Your task to perform on an android device: clear history in the chrome app Image 0: 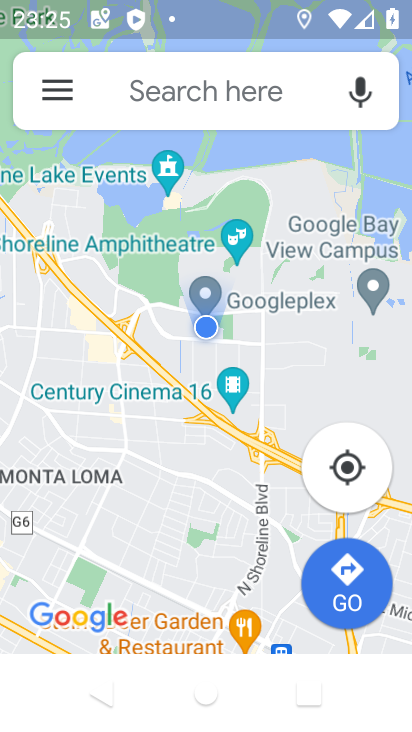
Step 0: press home button
Your task to perform on an android device: clear history in the chrome app Image 1: 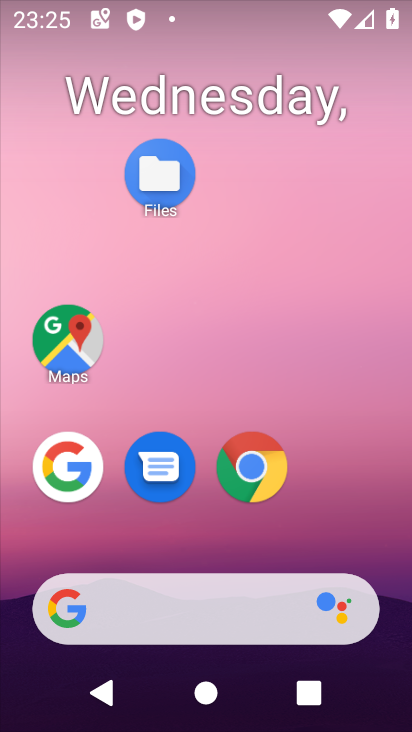
Step 1: drag from (200, 567) to (154, 27)
Your task to perform on an android device: clear history in the chrome app Image 2: 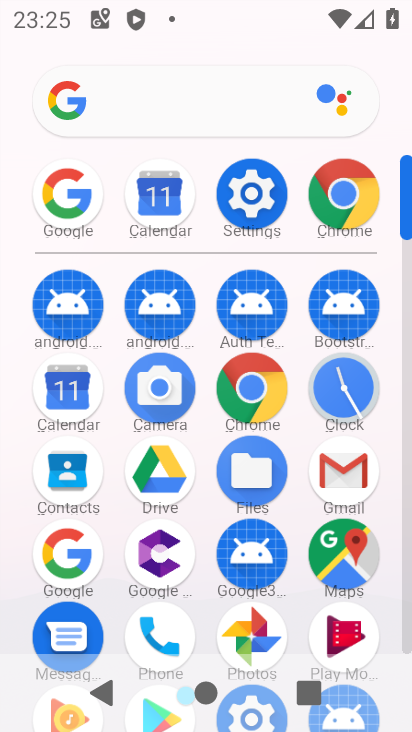
Step 2: click (263, 399)
Your task to perform on an android device: clear history in the chrome app Image 3: 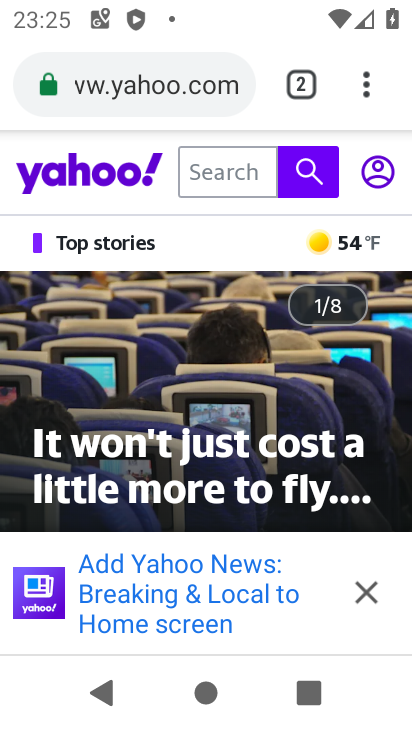
Step 3: click (354, 83)
Your task to perform on an android device: clear history in the chrome app Image 4: 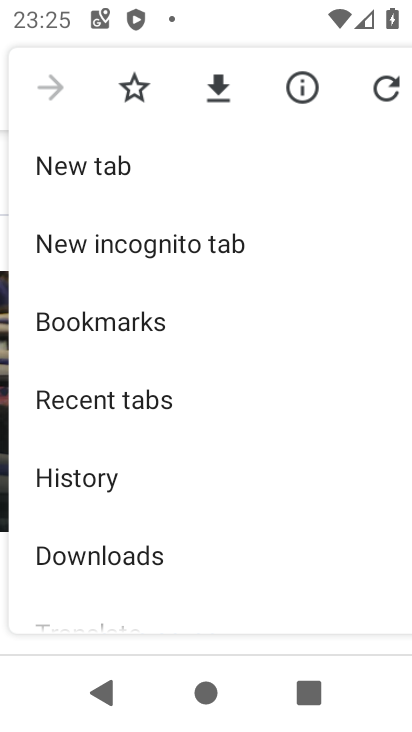
Step 4: click (80, 466)
Your task to perform on an android device: clear history in the chrome app Image 5: 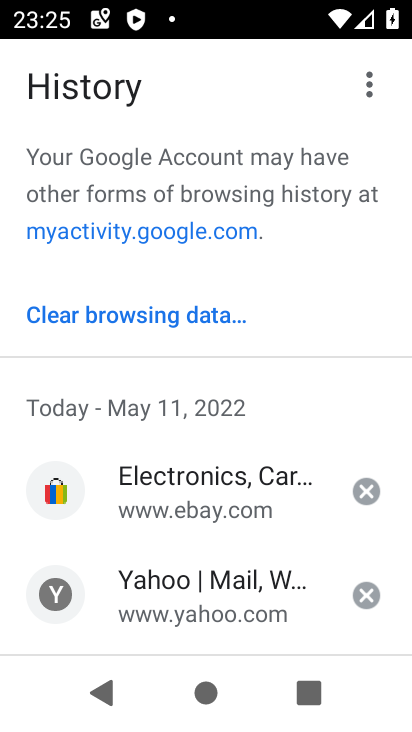
Step 5: click (125, 315)
Your task to perform on an android device: clear history in the chrome app Image 6: 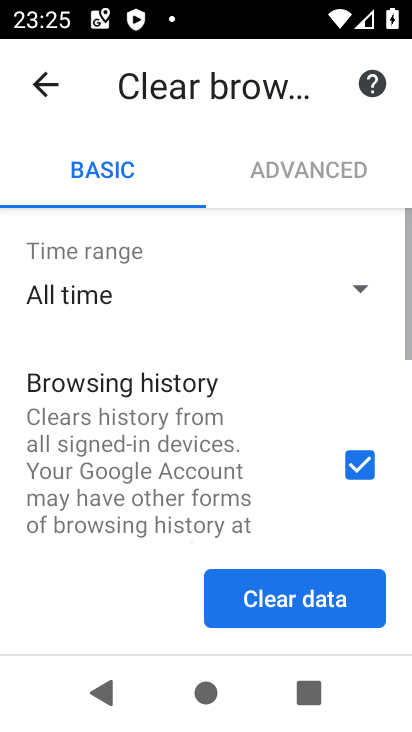
Step 6: click (338, 614)
Your task to perform on an android device: clear history in the chrome app Image 7: 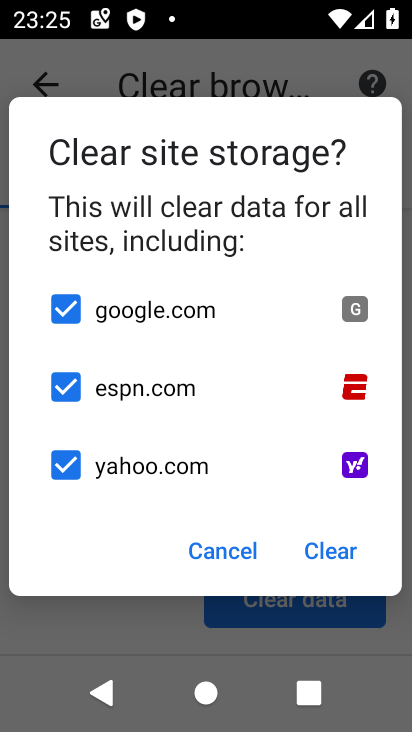
Step 7: click (329, 548)
Your task to perform on an android device: clear history in the chrome app Image 8: 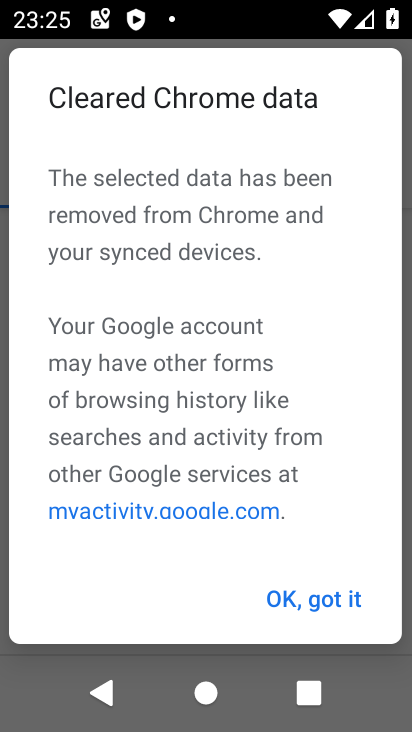
Step 8: click (313, 615)
Your task to perform on an android device: clear history in the chrome app Image 9: 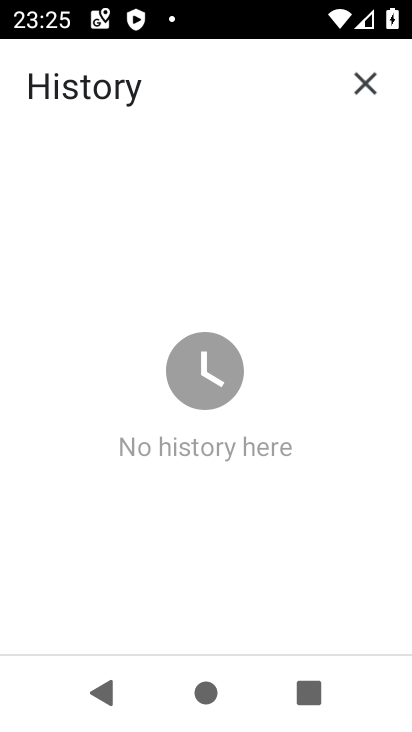
Step 9: task complete